Your task to perform on an android device: Search for Mexican restaurants on Maps Image 0: 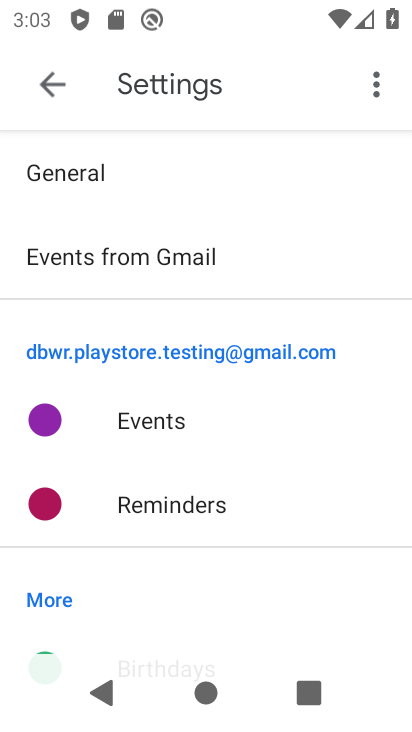
Step 0: press home button
Your task to perform on an android device: Search for Mexican restaurants on Maps Image 1: 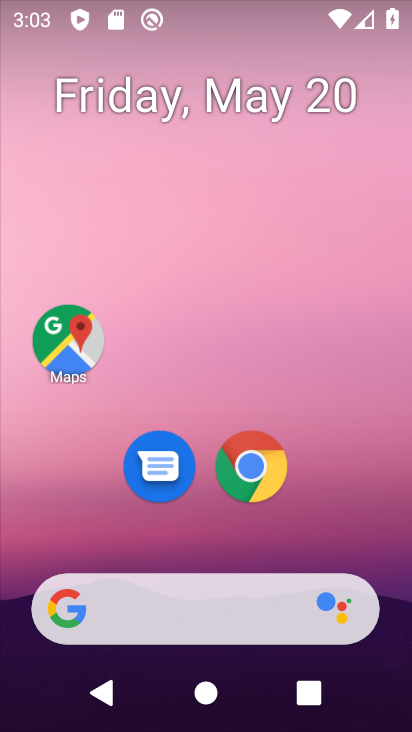
Step 1: drag from (191, 567) to (190, 162)
Your task to perform on an android device: Search for Mexican restaurants on Maps Image 2: 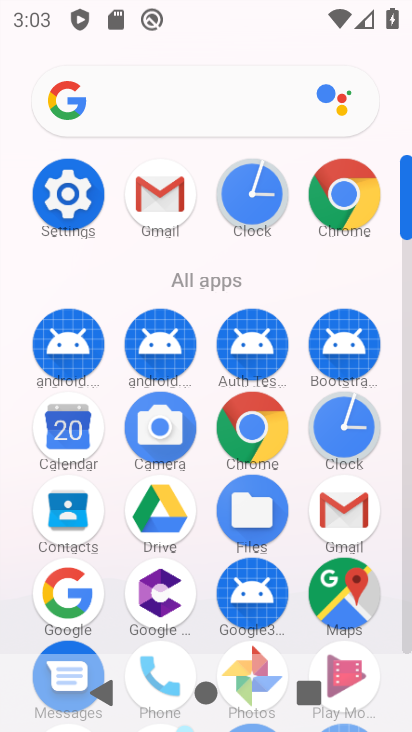
Step 2: drag from (112, 608) to (151, 318)
Your task to perform on an android device: Search for Mexican restaurants on Maps Image 3: 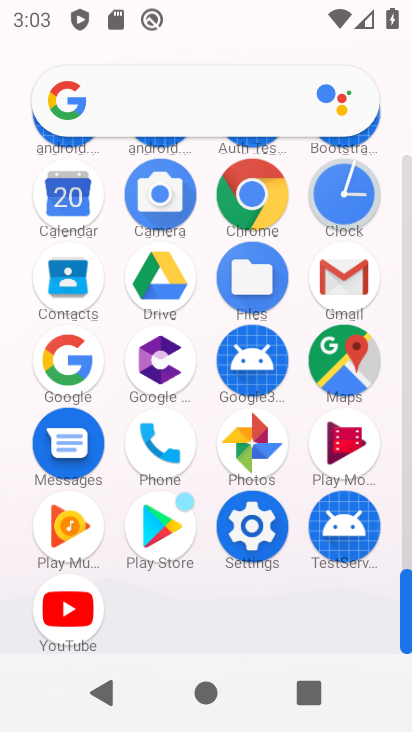
Step 3: click (349, 368)
Your task to perform on an android device: Search for Mexican restaurants on Maps Image 4: 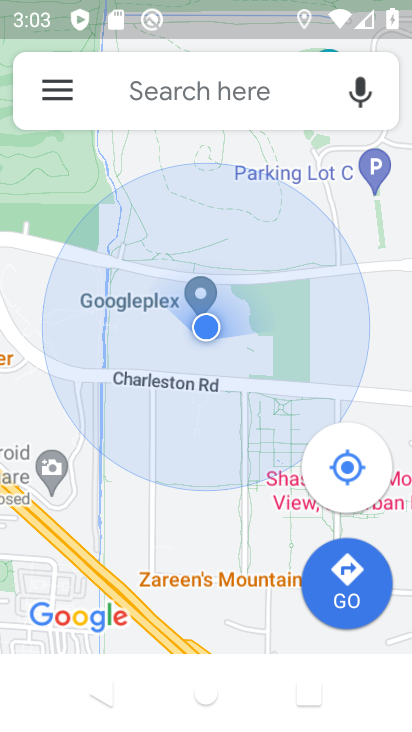
Step 4: click (209, 94)
Your task to perform on an android device: Search for Mexican restaurants on Maps Image 5: 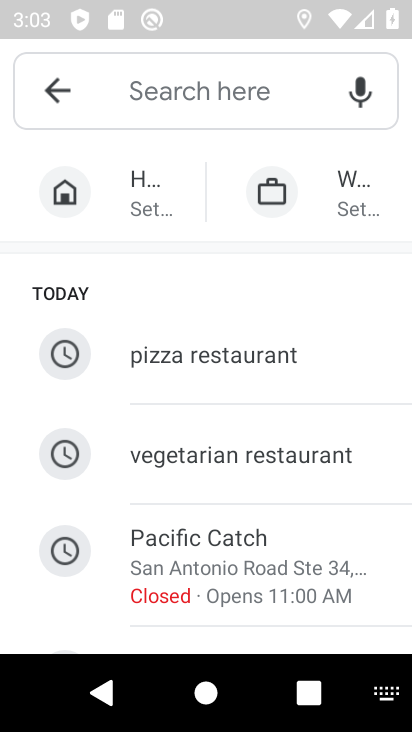
Step 5: drag from (221, 592) to (220, 227)
Your task to perform on an android device: Search for Mexican restaurants on Maps Image 6: 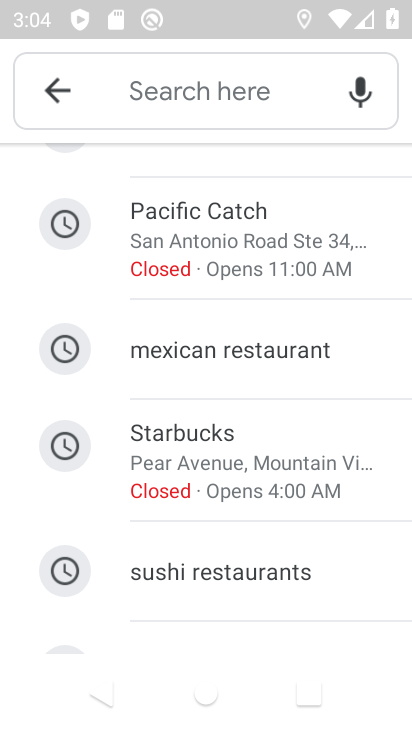
Step 6: type "mexican restaurants"
Your task to perform on an android device: Search for Mexican restaurants on Maps Image 7: 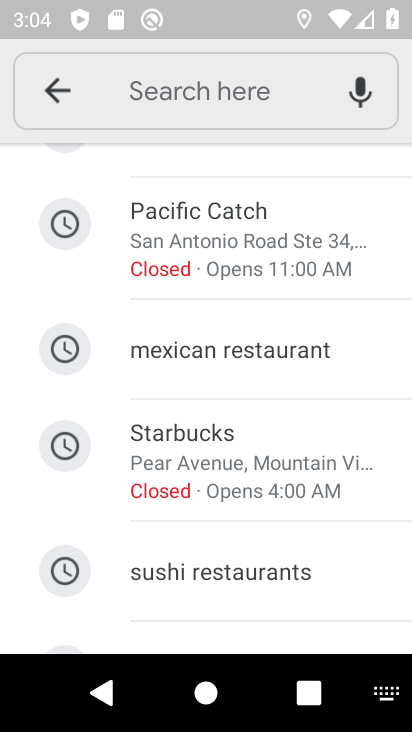
Step 7: drag from (246, 199) to (256, 494)
Your task to perform on an android device: Search for Mexican restaurants on Maps Image 8: 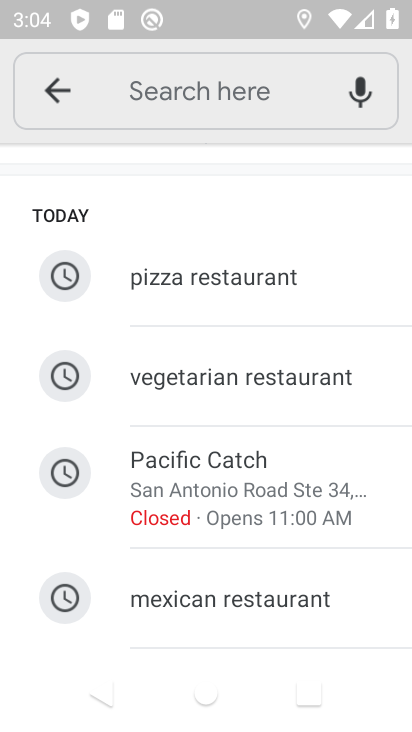
Step 8: drag from (223, 222) to (230, 510)
Your task to perform on an android device: Search for Mexican restaurants on Maps Image 9: 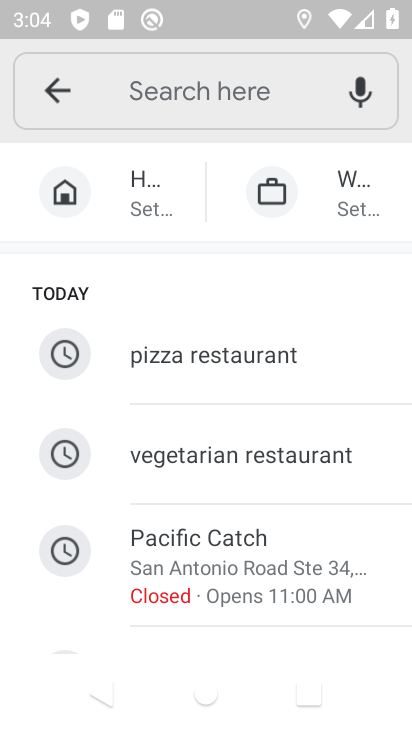
Step 9: drag from (225, 602) to (194, 291)
Your task to perform on an android device: Search for Mexican restaurants on Maps Image 10: 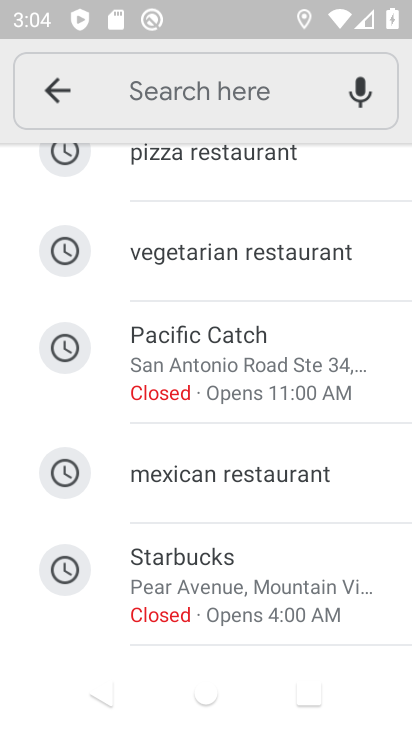
Step 10: drag from (206, 580) to (189, 251)
Your task to perform on an android device: Search for Mexican restaurants on Maps Image 11: 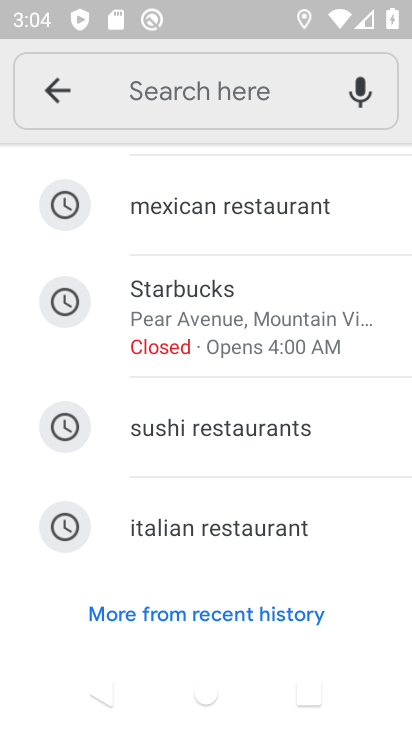
Step 11: drag from (215, 541) to (217, 204)
Your task to perform on an android device: Search for Mexican restaurants on Maps Image 12: 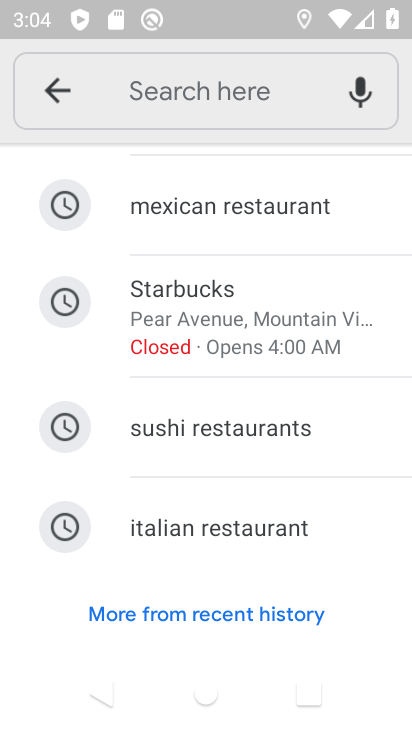
Step 12: click (217, 208)
Your task to perform on an android device: Search for Mexican restaurants on Maps Image 13: 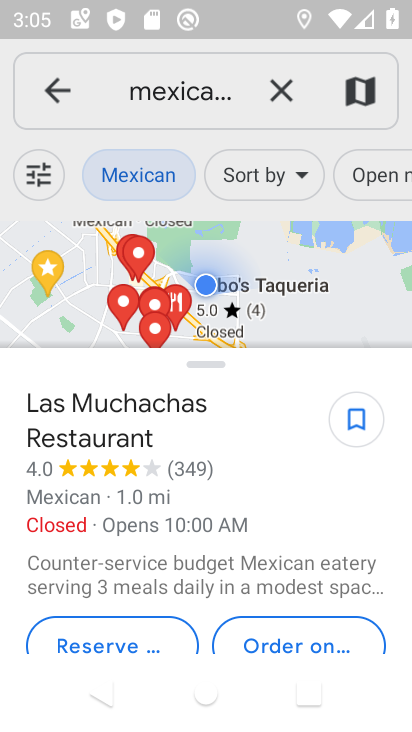
Step 13: task complete